Your task to perform on an android device: Search for Italian restaurants on Maps Image 0: 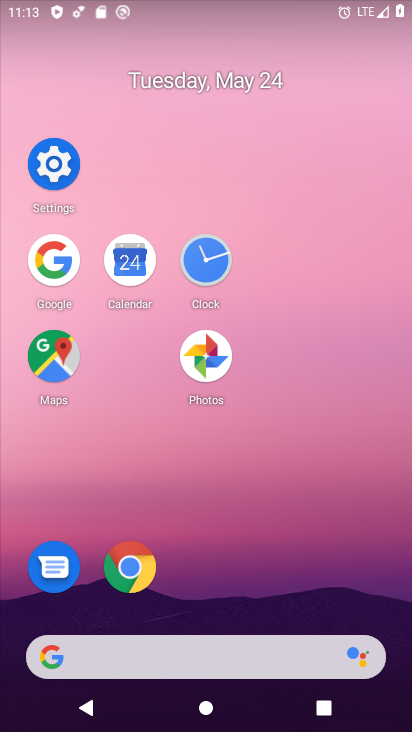
Step 0: click (54, 355)
Your task to perform on an android device: Search for Italian restaurants on Maps Image 1: 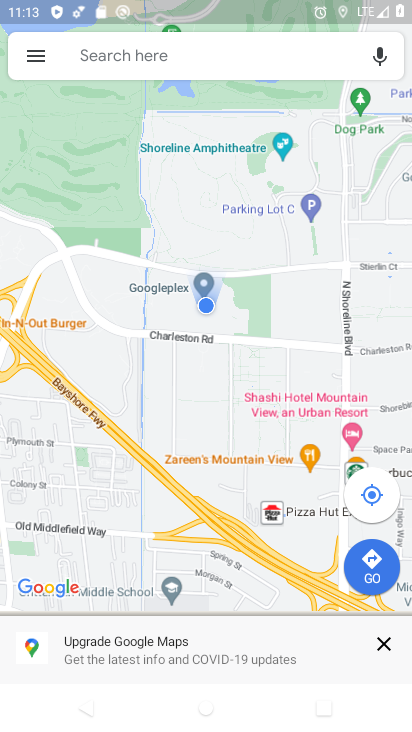
Step 1: click (221, 69)
Your task to perform on an android device: Search for Italian restaurants on Maps Image 2: 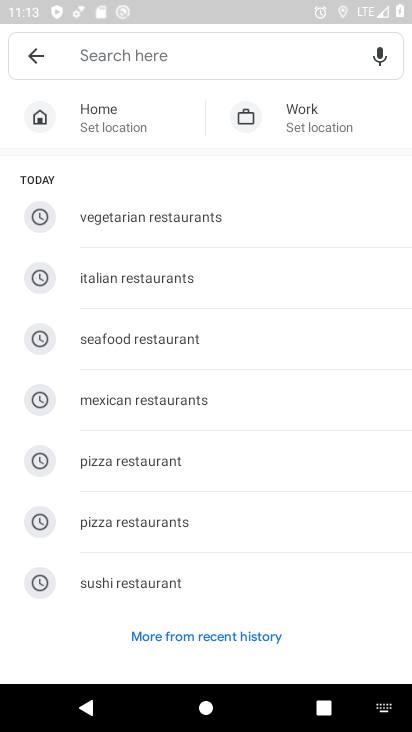
Step 2: click (152, 280)
Your task to perform on an android device: Search for Italian restaurants on Maps Image 3: 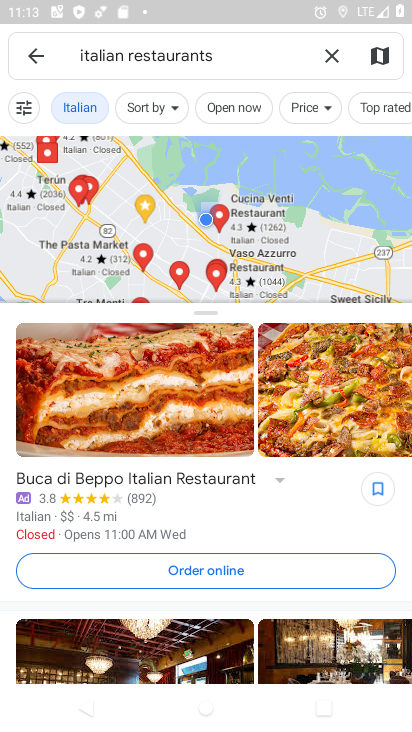
Step 3: task complete